Your task to perform on an android device: Search for vegetarian restaurants on Maps Image 0: 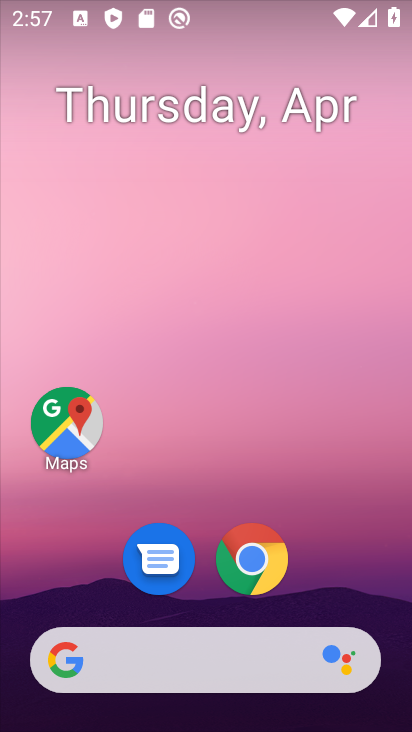
Step 0: click (80, 403)
Your task to perform on an android device: Search for vegetarian restaurants on Maps Image 1: 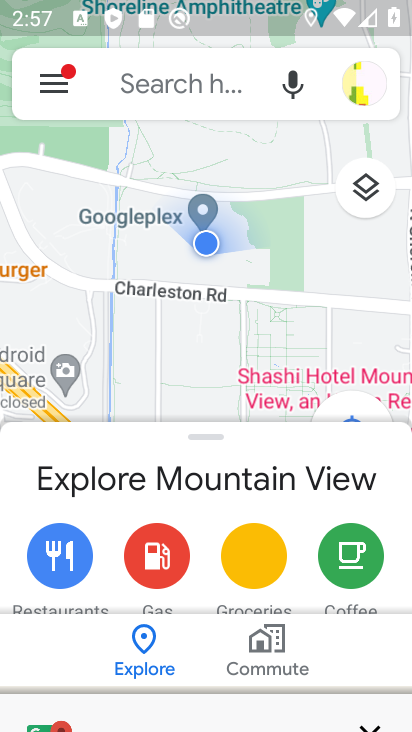
Step 1: click (218, 89)
Your task to perform on an android device: Search for vegetarian restaurants on Maps Image 2: 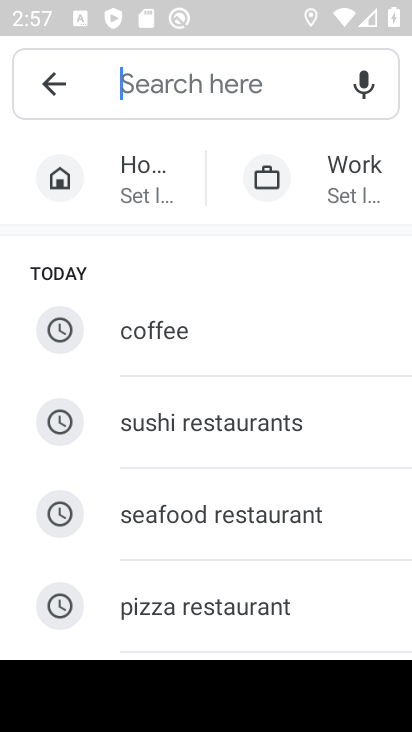
Step 2: type "vegetarian restaurants"
Your task to perform on an android device: Search for vegetarian restaurants on Maps Image 3: 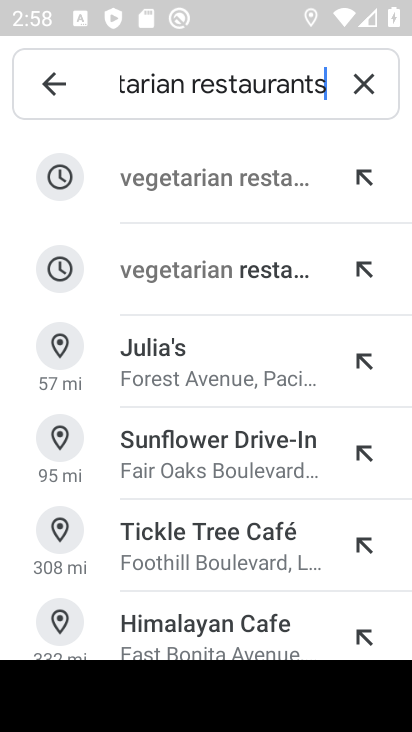
Step 3: task complete